Your task to perform on an android device: allow cookies in the chrome app Image 0: 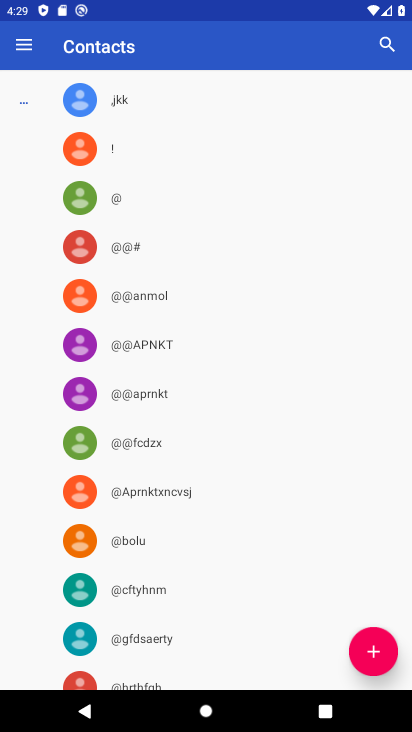
Step 0: press home button
Your task to perform on an android device: allow cookies in the chrome app Image 1: 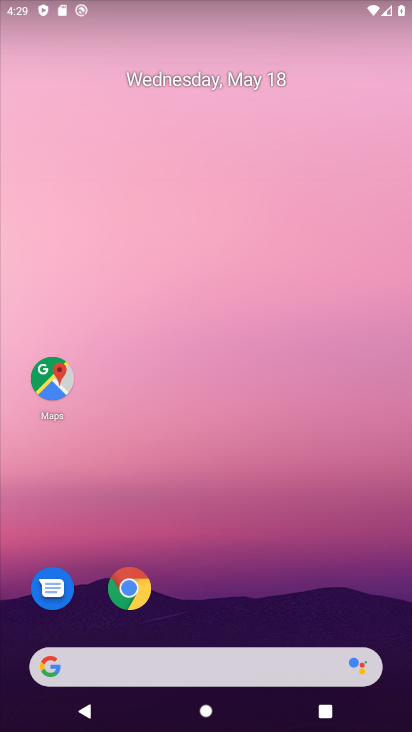
Step 1: click (138, 586)
Your task to perform on an android device: allow cookies in the chrome app Image 2: 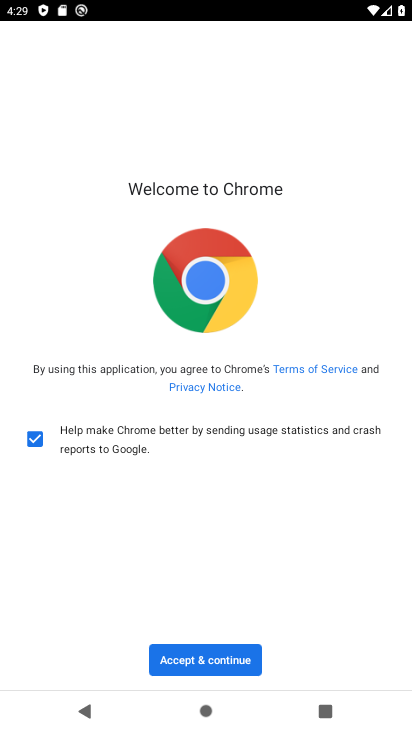
Step 2: click (250, 652)
Your task to perform on an android device: allow cookies in the chrome app Image 3: 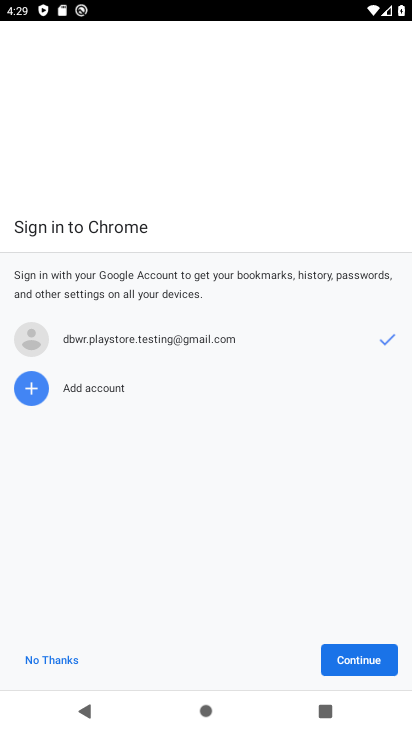
Step 3: click (355, 654)
Your task to perform on an android device: allow cookies in the chrome app Image 4: 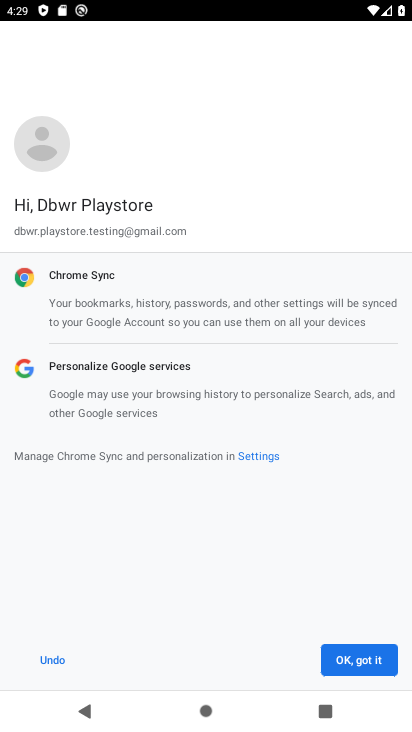
Step 4: click (355, 654)
Your task to perform on an android device: allow cookies in the chrome app Image 5: 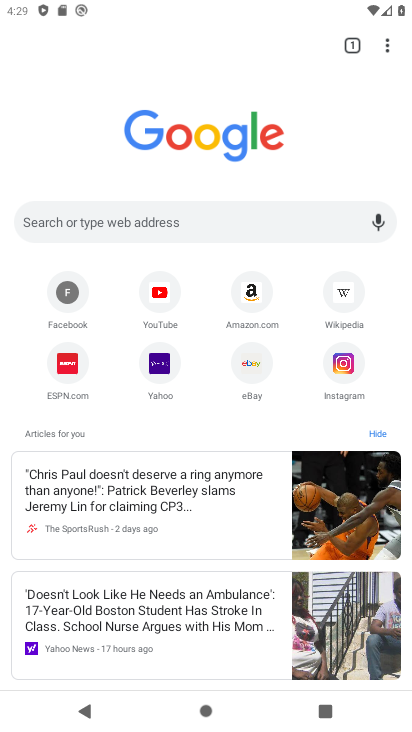
Step 5: drag from (388, 39) to (214, 376)
Your task to perform on an android device: allow cookies in the chrome app Image 6: 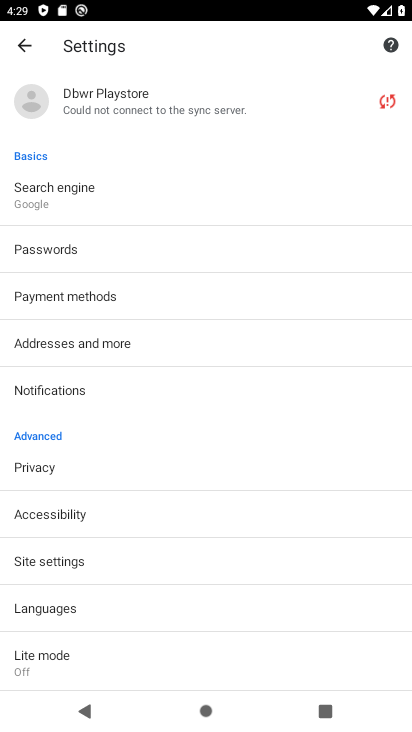
Step 6: click (106, 563)
Your task to perform on an android device: allow cookies in the chrome app Image 7: 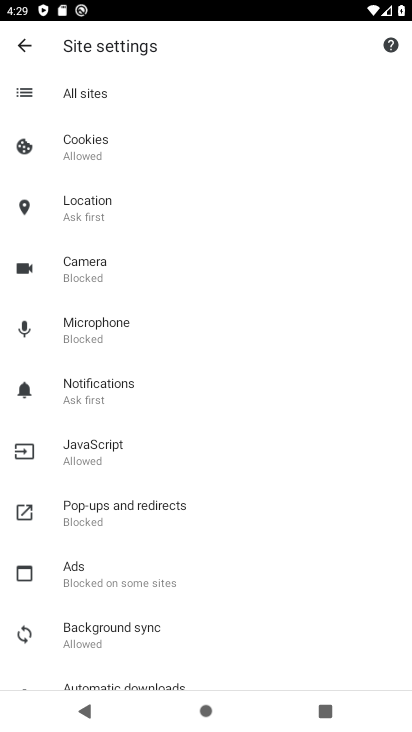
Step 7: click (86, 144)
Your task to perform on an android device: allow cookies in the chrome app Image 8: 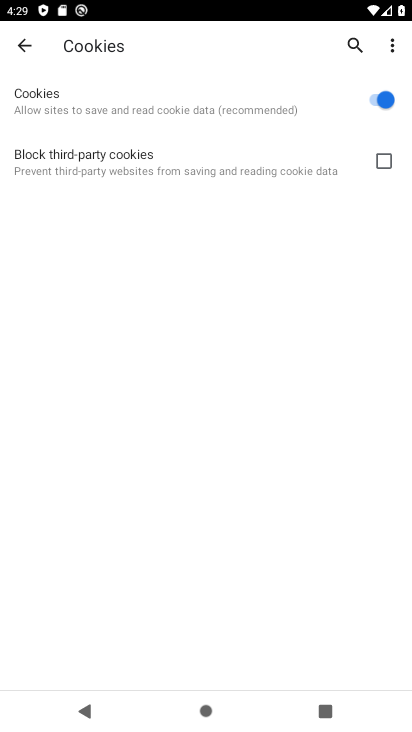
Step 8: task complete